Your task to perform on an android device: Open CNN.com Image 0: 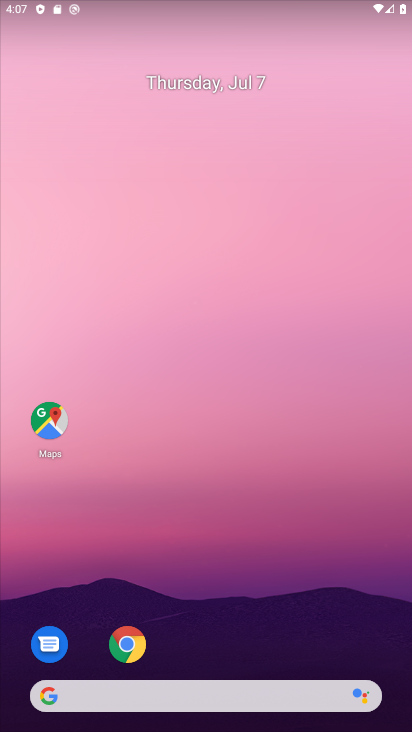
Step 0: click (120, 650)
Your task to perform on an android device: Open CNN.com Image 1: 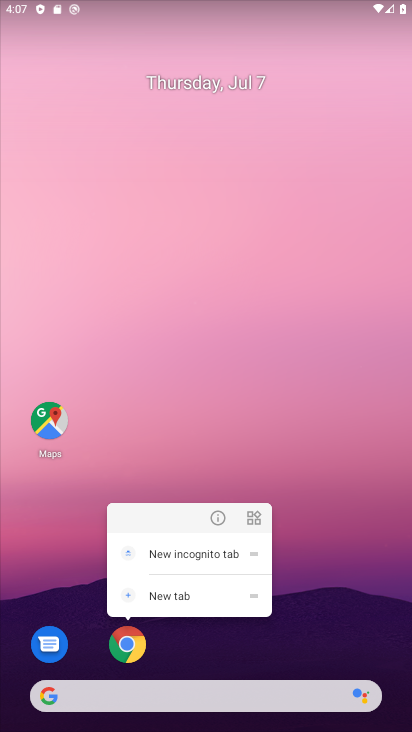
Step 1: click (137, 648)
Your task to perform on an android device: Open CNN.com Image 2: 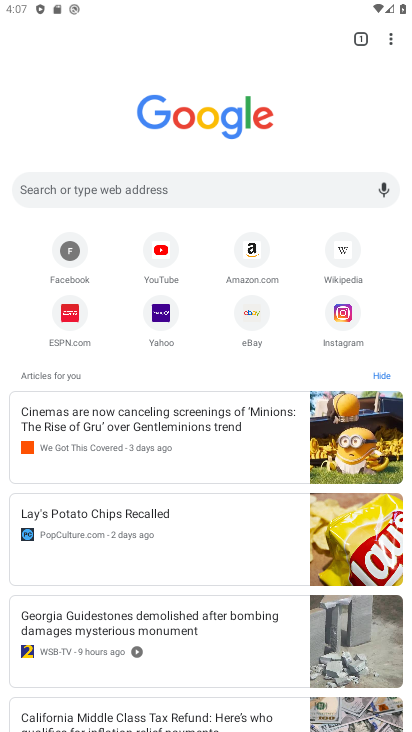
Step 2: click (193, 196)
Your task to perform on an android device: Open CNN.com Image 3: 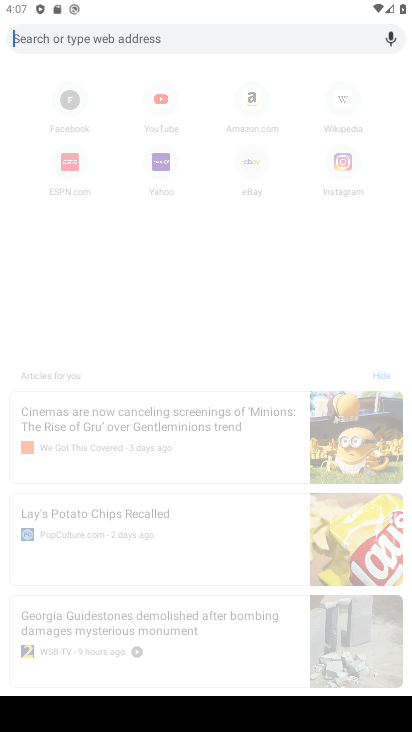
Step 3: type "CNN.com"
Your task to perform on an android device: Open CNN.com Image 4: 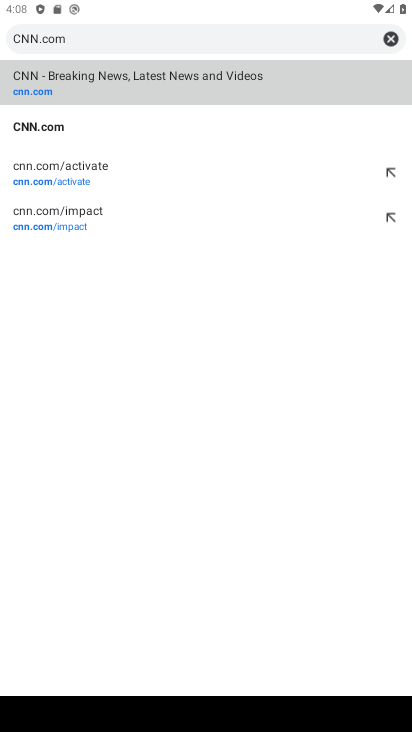
Step 4: click (84, 94)
Your task to perform on an android device: Open CNN.com Image 5: 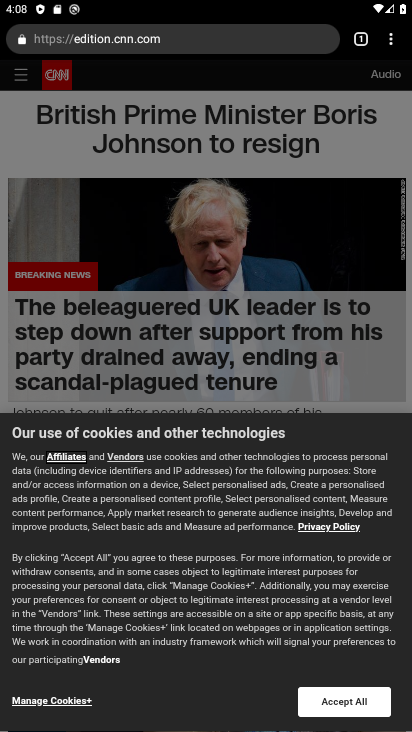
Step 5: task complete